Your task to perform on an android device: toggle sleep mode Image 0: 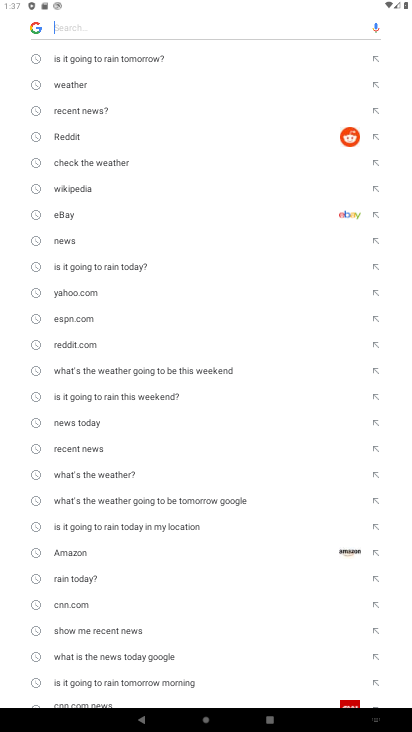
Step 0: press home button
Your task to perform on an android device: toggle sleep mode Image 1: 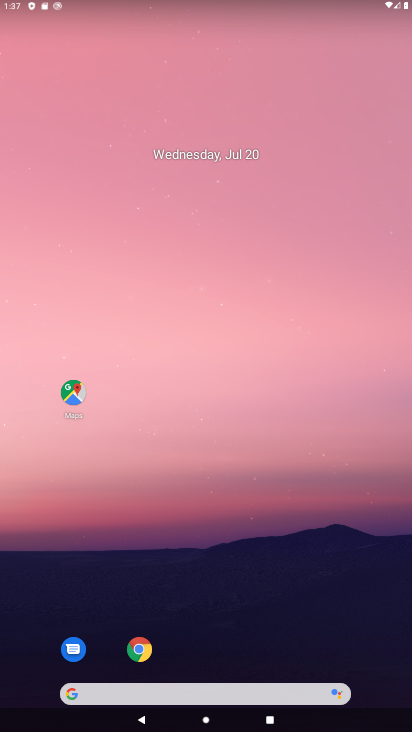
Step 1: task complete